Your task to perform on an android device: open a new tab in the chrome app Image 0: 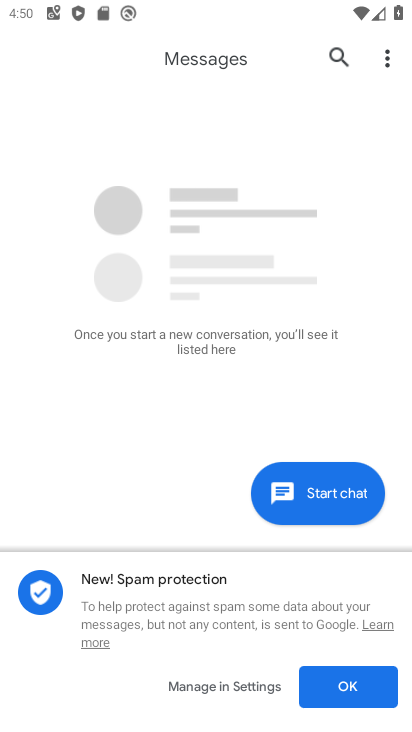
Step 0: press home button
Your task to perform on an android device: open a new tab in the chrome app Image 1: 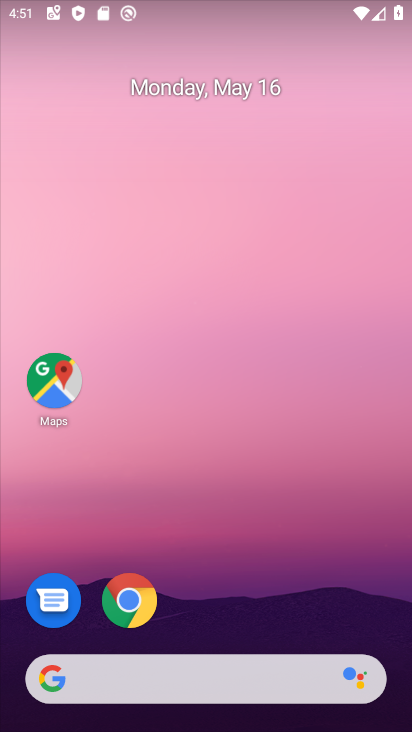
Step 1: drag from (233, 635) to (401, 63)
Your task to perform on an android device: open a new tab in the chrome app Image 2: 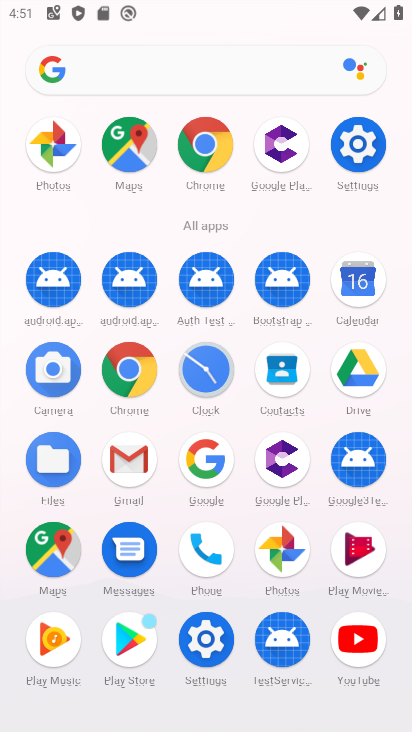
Step 2: click (200, 155)
Your task to perform on an android device: open a new tab in the chrome app Image 3: 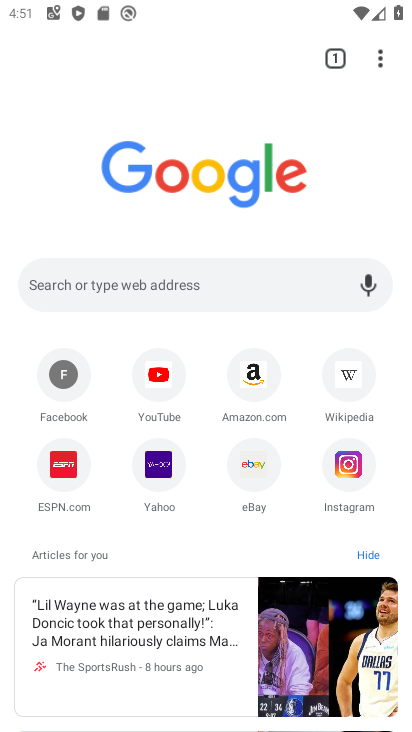
Step 3: click (341, 54)
Your task to perform on an android device: open a new tab in the chrome app Image 4: 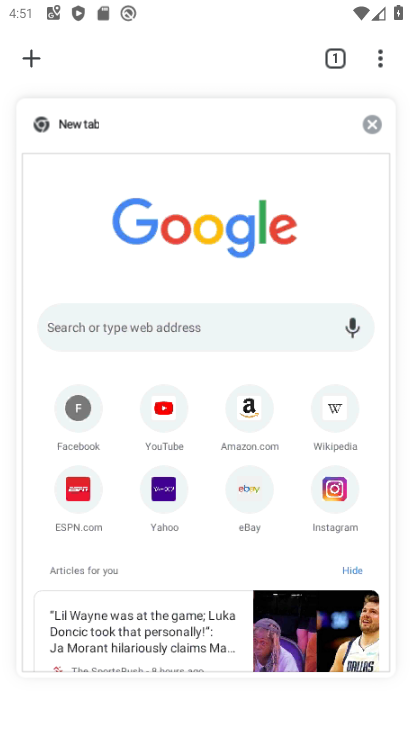
Step 4: click (23, 56)
Your task to perform on an android device: open a new tab in the chrome app Image 5: 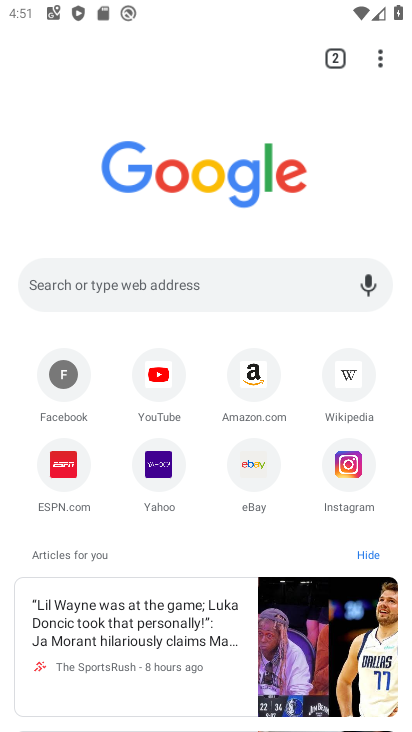
Step 5: task complete